Your task to perform on an android device: turn off javascript in the chrome app Image 0: 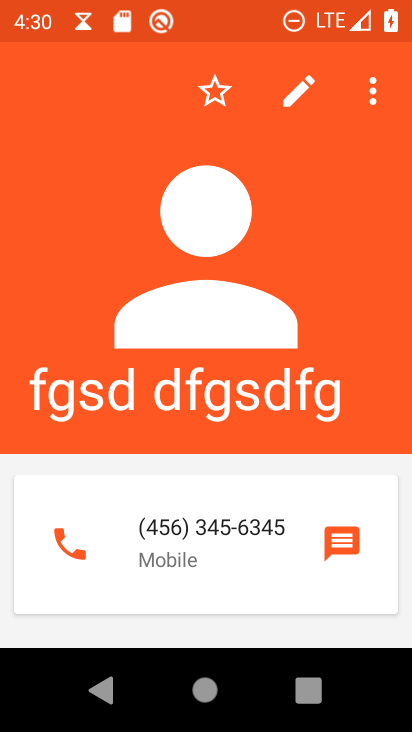
Step 0: press home button
Your task to perform on an android device: turn off javascript in the chrome app Image 1: 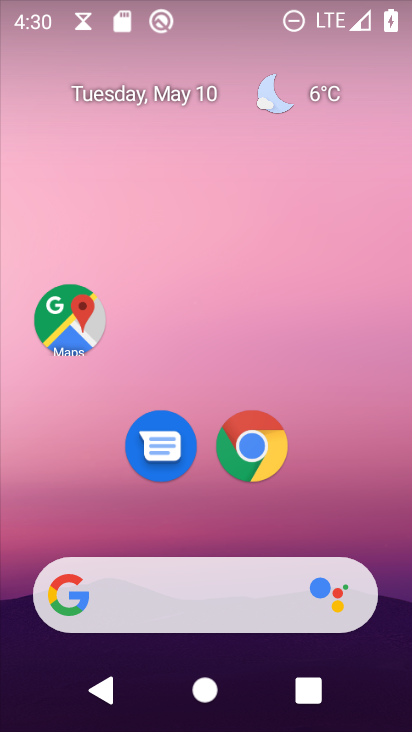
Step 1: click (262, 436)
Your task to perform on an android device: turn off javascript in the chrome app Image 2: 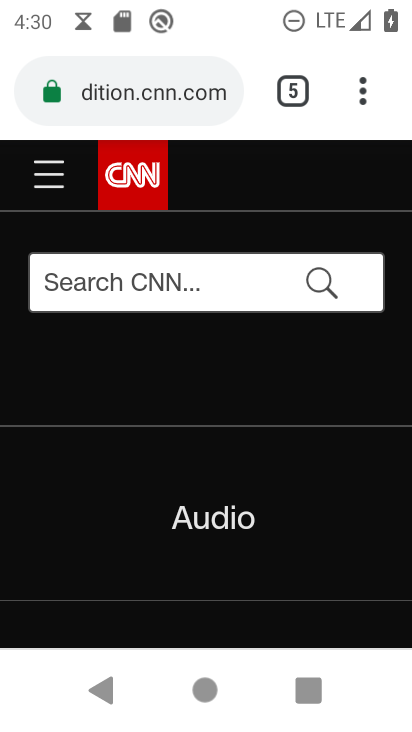
Step 2: click (365, 82)
Your task to perform on an android device: turn off javascript in the chrome app Image 3: 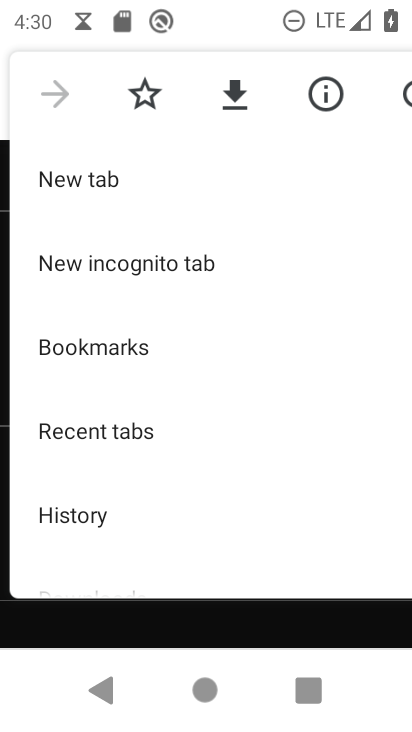
Step 3: drag from (195, 534) to (180, 112)
Your task to perform on an android device: turn off javascript in the chrome app Image 4: 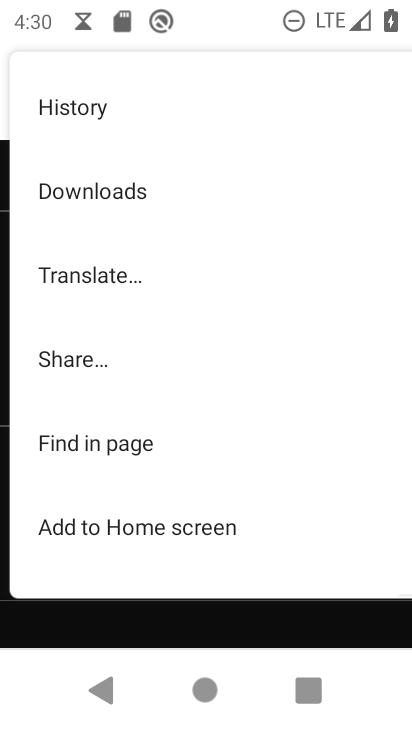
Step 4: drag from (211, 505) to (234, 173)
Your task to perform on an android device: turn off javascript in the chrome app Image 5: 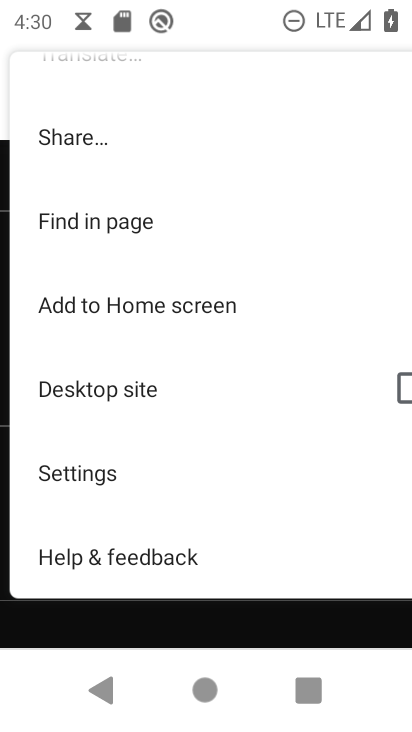
Step 5: click (138, 472)
Your task to perform on an android device: turn off javascript in the chrome app Image 6: 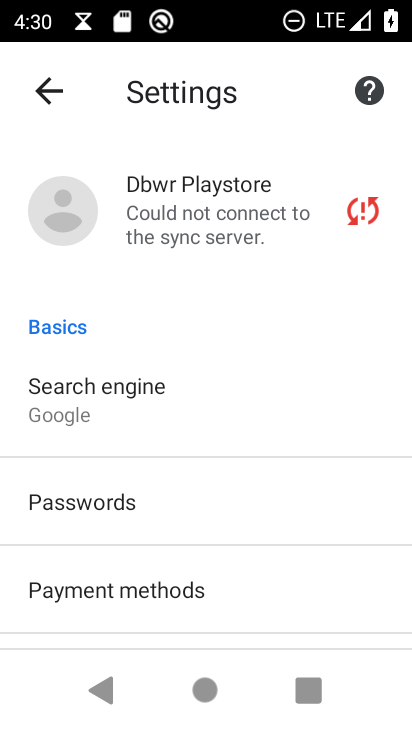
Step 6: drag from (168, 560) to (233, 162)
Your task to perform on an android device: turn off javascript in the chrome app Image 7: 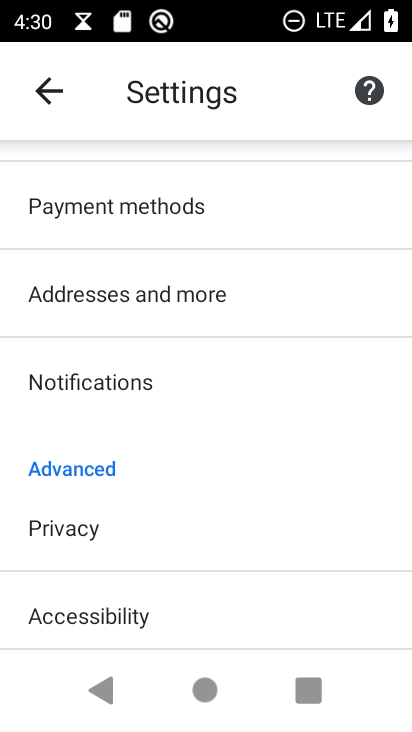
Step 7: drag from (149, 538) to (213, 231)
Your task to perform on an android device: turn off javascript in the chrome app Image 8: 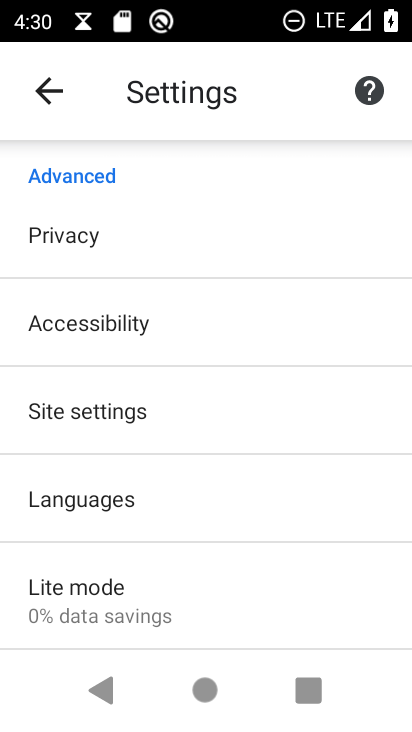
Step 8: click (146, 404)
Your task to perform on an android device: turn off javascript in the chrome app Image 9: 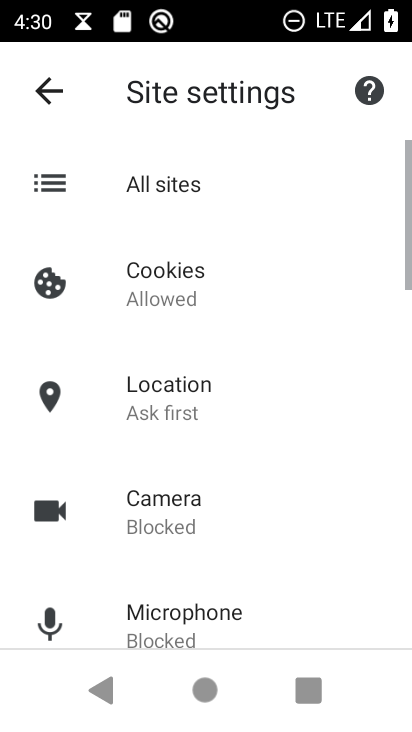
Step 9: drag from (254, 540) to (269, 194)
Your task to perform on an android device: turn off javascript in the chrome app Image 10: 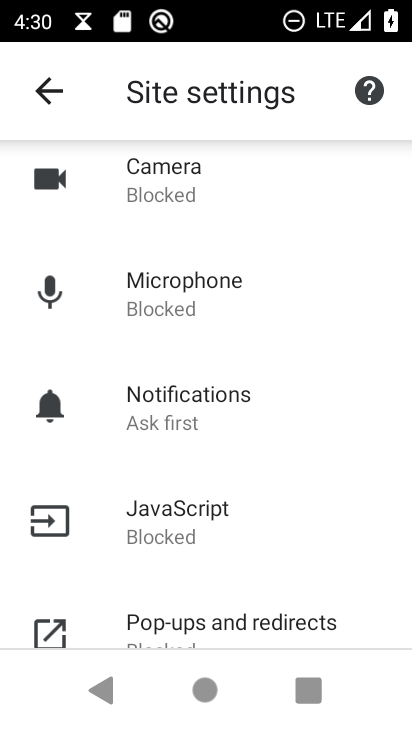
Step 10: click (196, 521)
Your task to perform on an android device: turn off javascript in the chrome app Image 11: 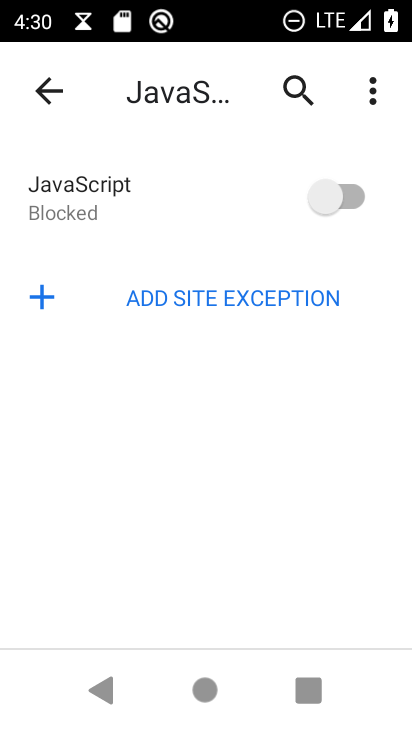
Step 11: task complete